Your task to perform on an android device: open app "Truecaller" Image 0: 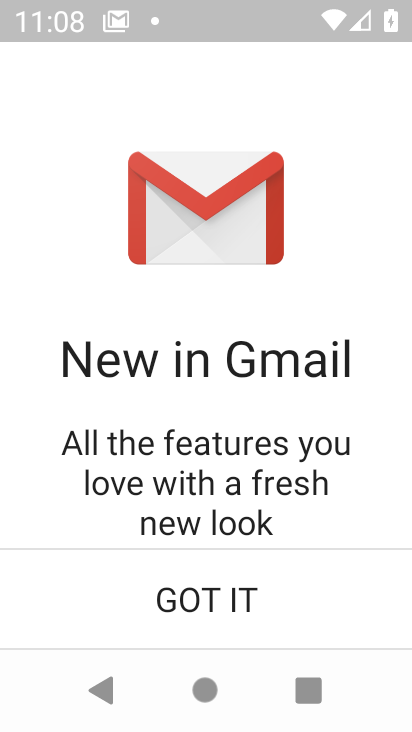
Step 0: press home button
Your task to perform on an android device: open app "Truecaller" Image 1: 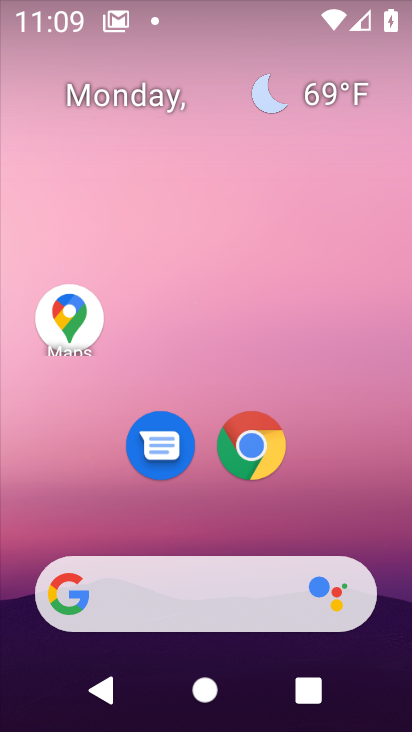
Step 1: drag from (255, 577) to (194, 0)
Your task to perform on an android device: open app "Truecaller" Image 2: 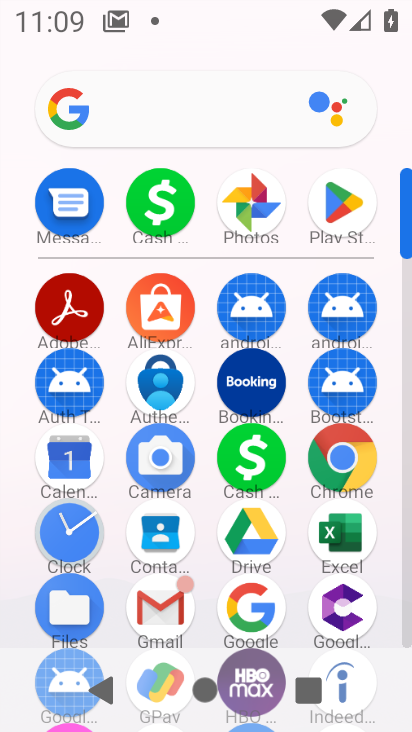
Step 2: click (353, 210)
Your task to perform on an android device: open app "Truecaller" Image 3: 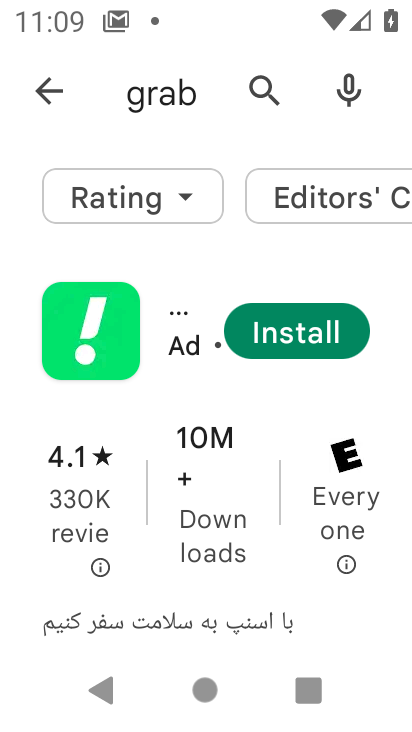
Step 3: click (46, 73)
Your task to perform on an android device: open app "Truecaller" Image 4: 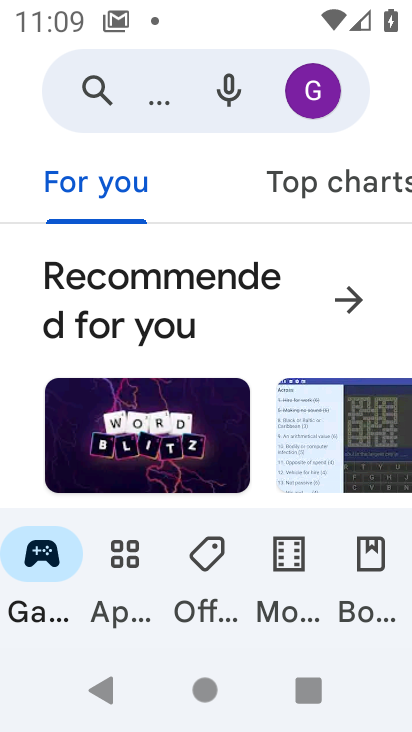
Step 4: click (94, 99)
Your task to perform on an android device: open app "Truecaller" Image 5: 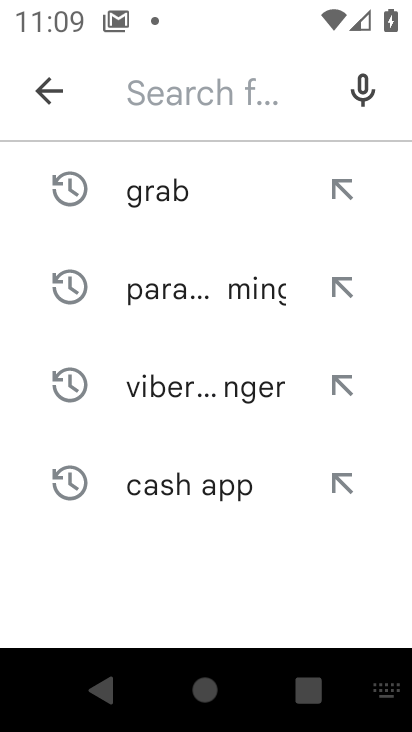
Step 5: type "Truecaller"
Your task to perform on an android device: open app "Truecaller" Image 6: 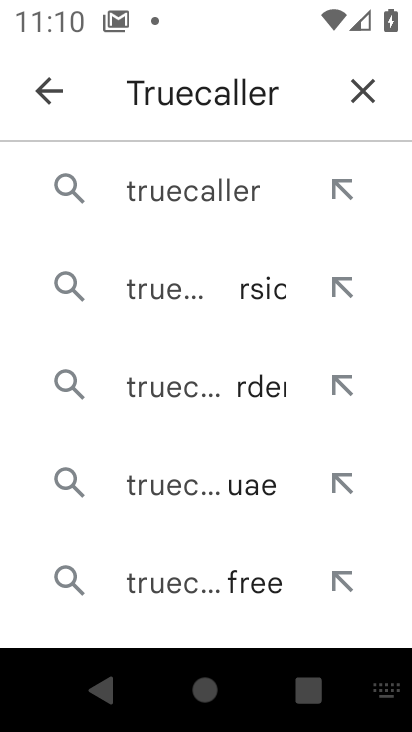
Step 6: click (180, 205)
Your task to perform on an android device: open app "Truecaller" Image 7: 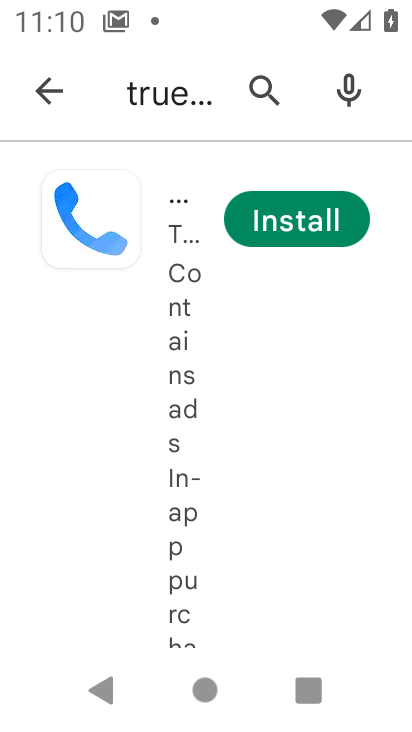
Step 7: task complete